Your task to perform on an android device: Go to privacy settings Image 0: 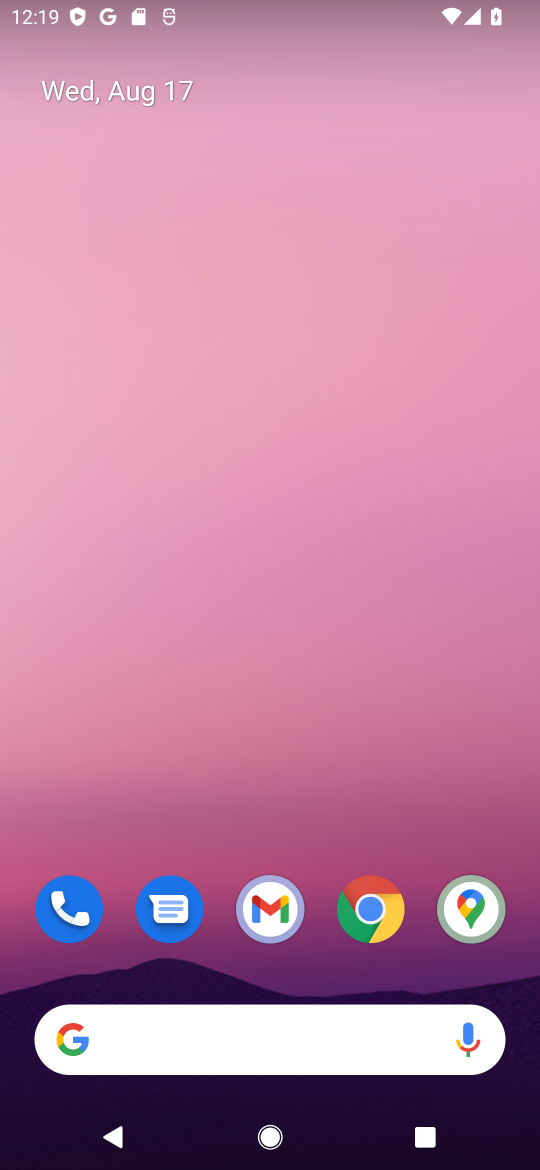
Step 0: drag from (289, 807) to (347, 134)
Your task to perform on an android device: Go to privacy settings Image 1: 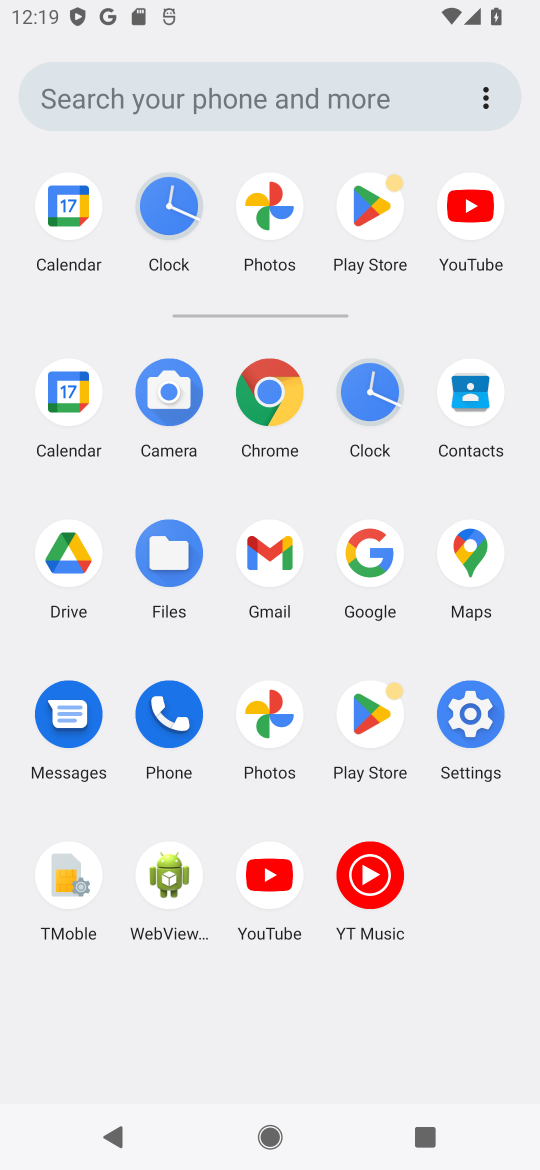
Step 1: click (462, 712)
Your task to perform on an android device: Go to privacy settings Image 2: 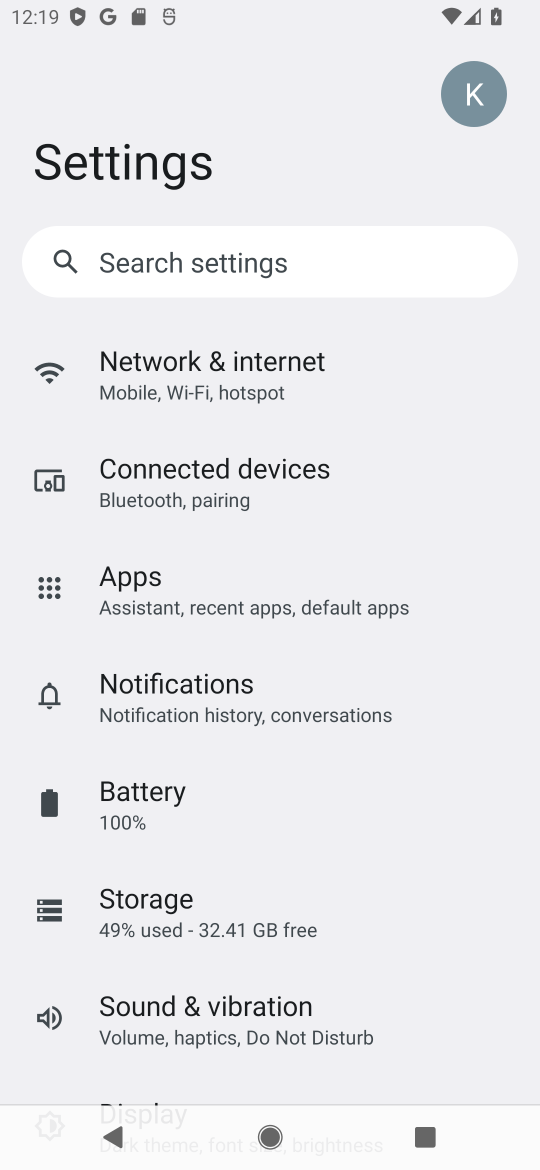
Step 2: drag from (342, 960) to (340, 624)
Your task to perform on an android device: Go to privacy settings Image 3: 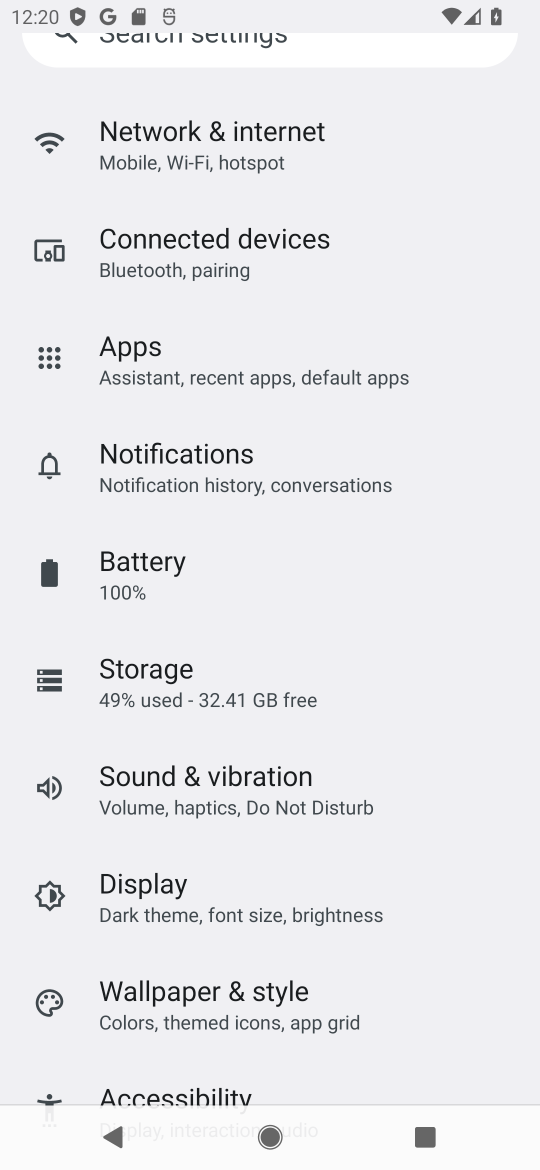
Step 3: drag from (368, 698) to (354, 350)
Your task to perform on an android device: Go to privacy settings Image 4: 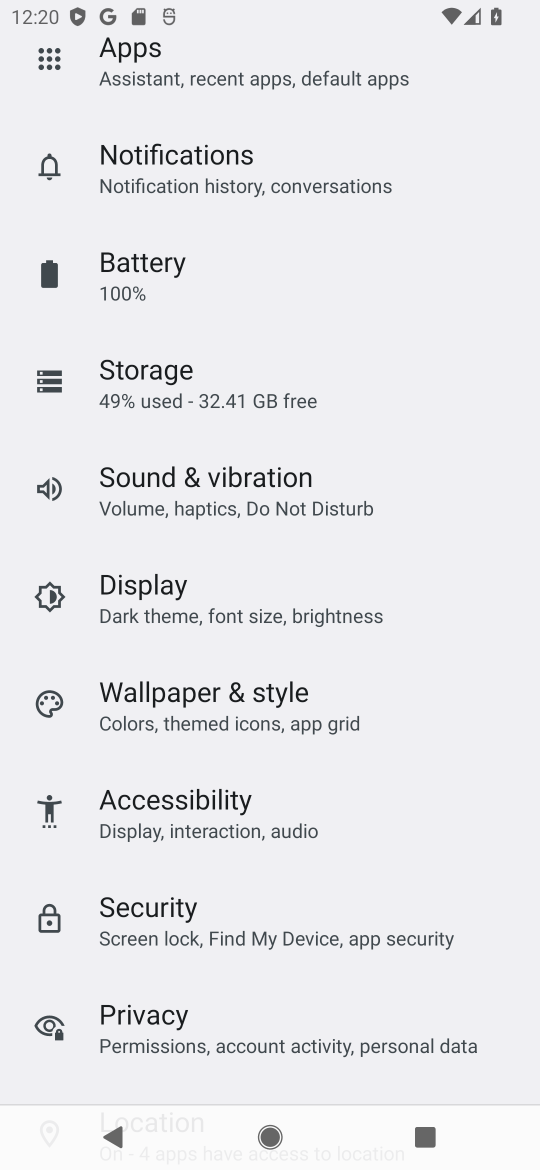
Step 4: click (132, 1021)
Your task to perform on an android device: Go to privacy settings Image 5: 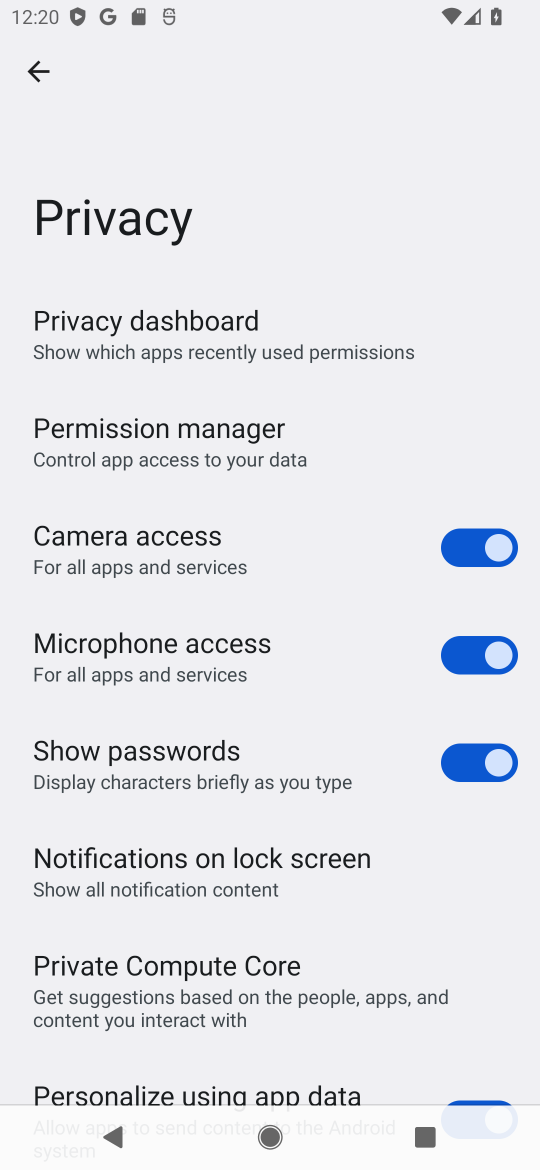
Step 5: task complete